Your task to perform on an android device: see sites visited before in the chrome app Image 0: 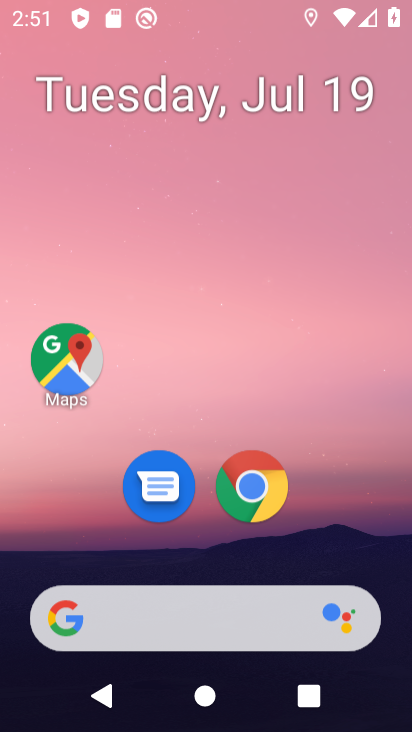
Step 0: drag from (216, 536) to (292, 5)
Your task to perform on an android device: see sites visited before in the chrome app Image 1: 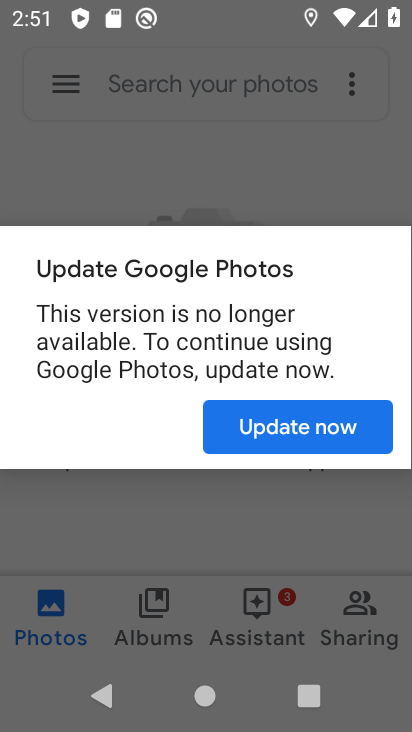
Step 1: press back button
Your task to perform on an android device: see sites visited before in the chrome app Image 2: 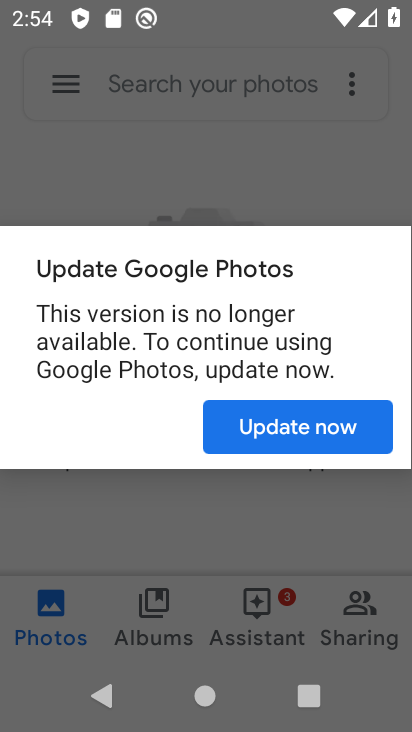
Step 2: press back button
Your task to perform on an android device: see sites visited before in the chrome app Image 3: 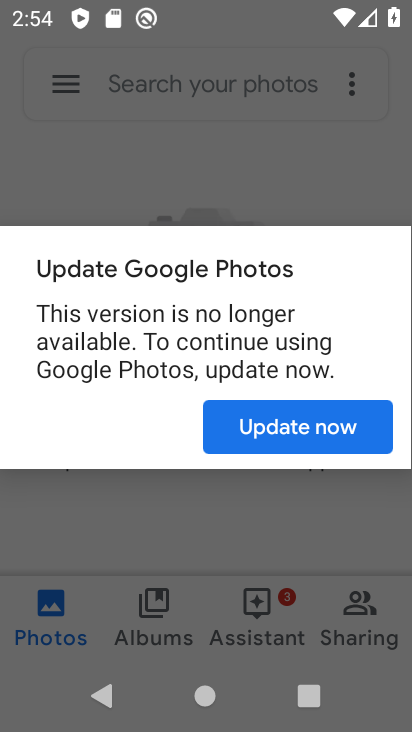
Step 3: press back button
Your task to perform on an android device: see sites visited before in the chrome app Image 4: 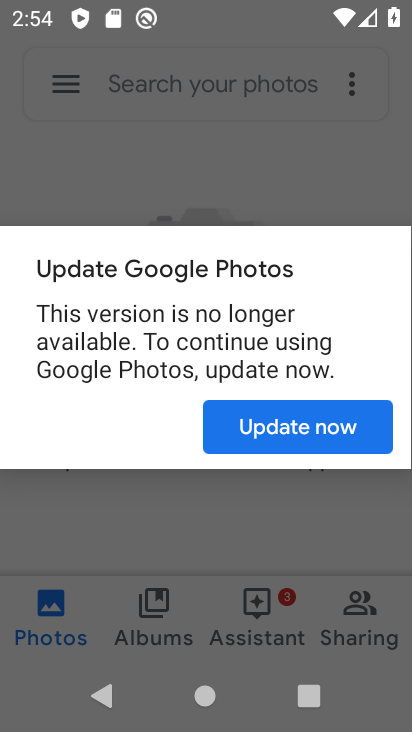
Step 4: press back button
Your task to perform on an android device: see sites visited before in the chrome app Image 5: 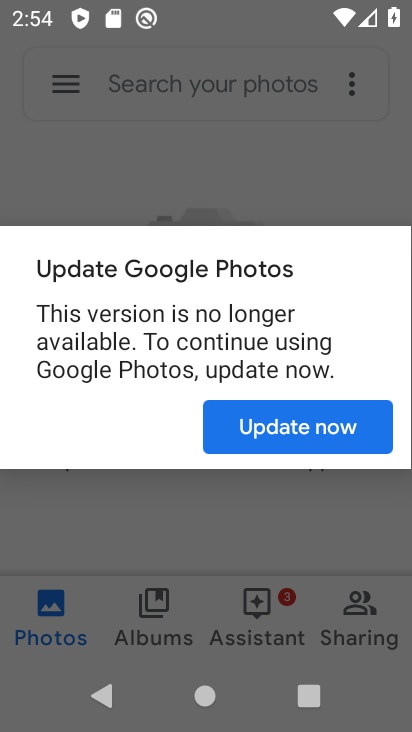
Step 5: press home button
Your task to perform on an android device: see sites visited before in the chrome app Image 6: 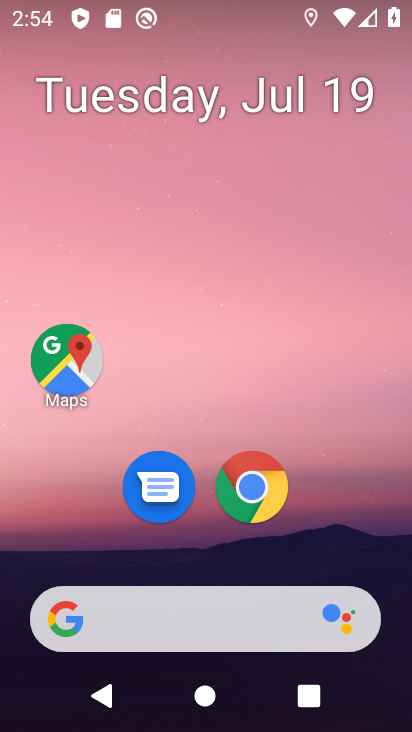
Step 6: click (250, 505)
Your task to perform on an android device: see sites visited before in the chrome app Image 7: 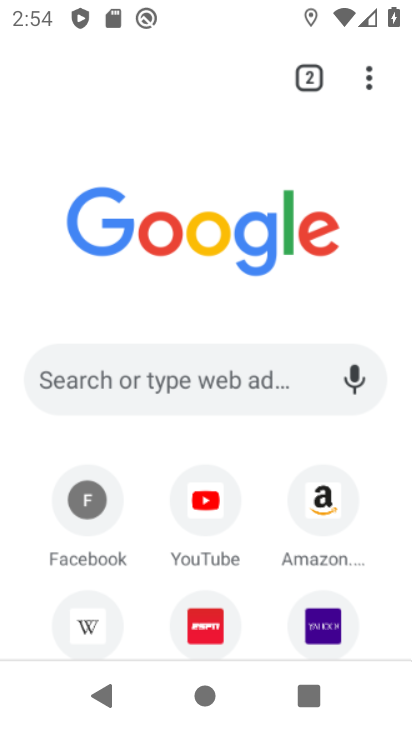
Step 7: task complete